Your task to perform on an android device: When is my next appointment? Image 0: 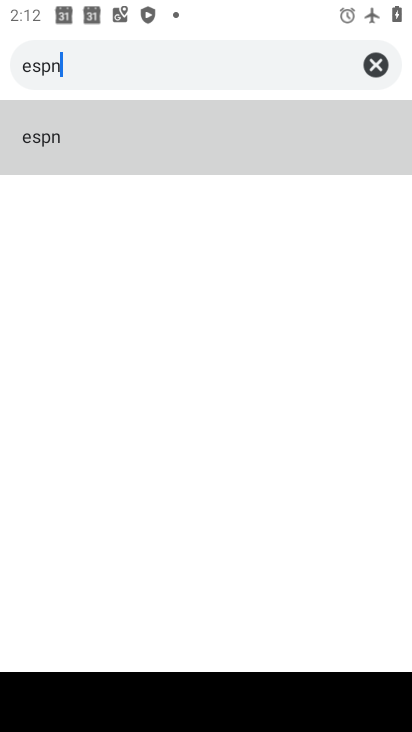
Step 0: press home button
Your task to perform on an android device: When is my next appointment? Image 1: 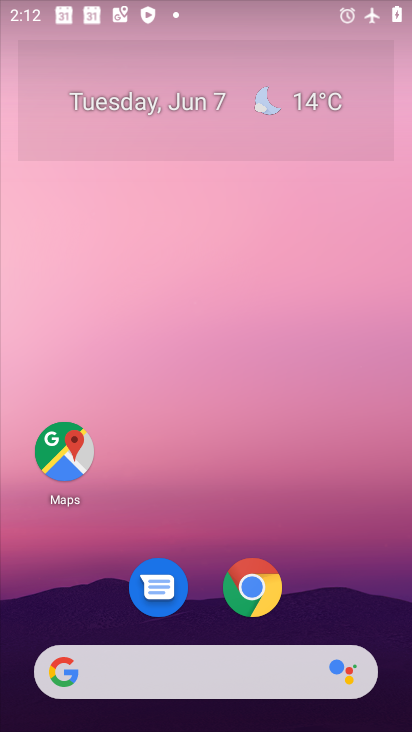
Step 1: drag from (259, 703) to (296, 543)
Your task to perform on an android device: When is my next appointment? Image 2: 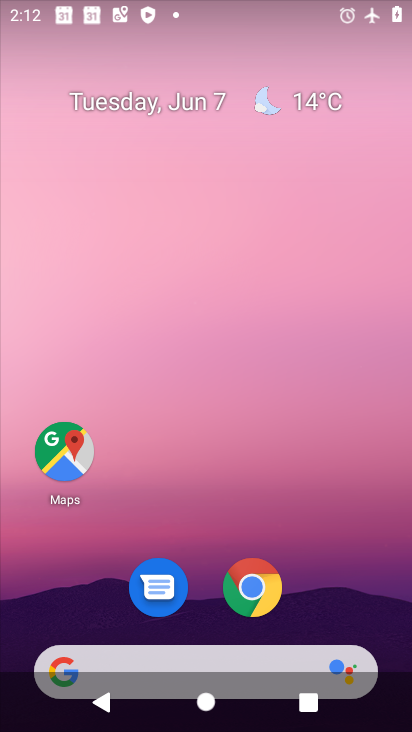
Step 2: drag from (296, 611) to (343, 236)
Your task to perform on an android device: When is my next appointment? Image 3: 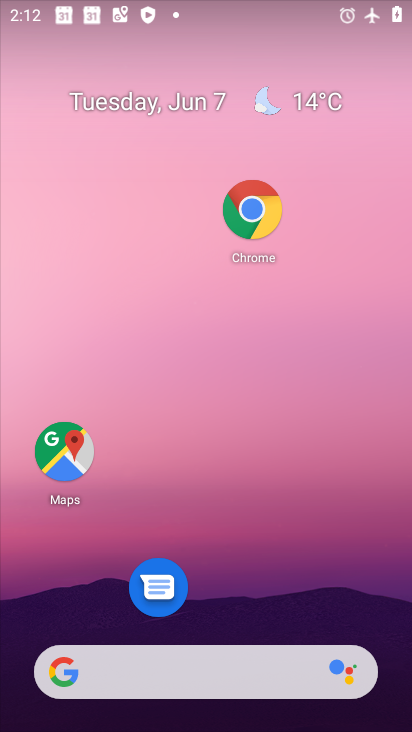
Step 3: drag from (299, 596) to (305, 337)
Your task to perform on an android device: When is my next appointment? Image 4: 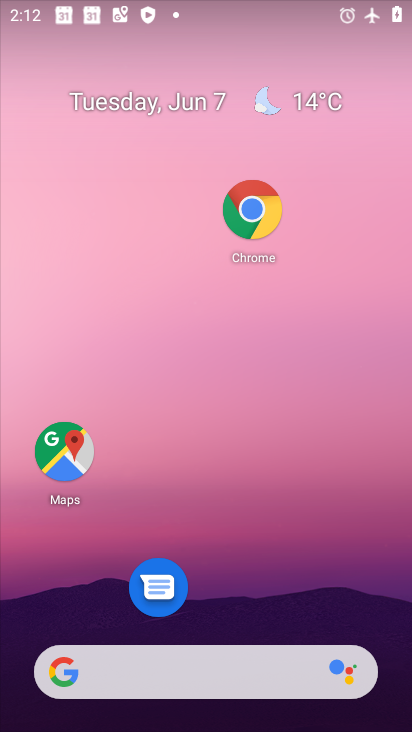
Step 4: drag from (296, 676) to (271, 224)
Your task to perform on an android device: When is my next appointment? Image 5: 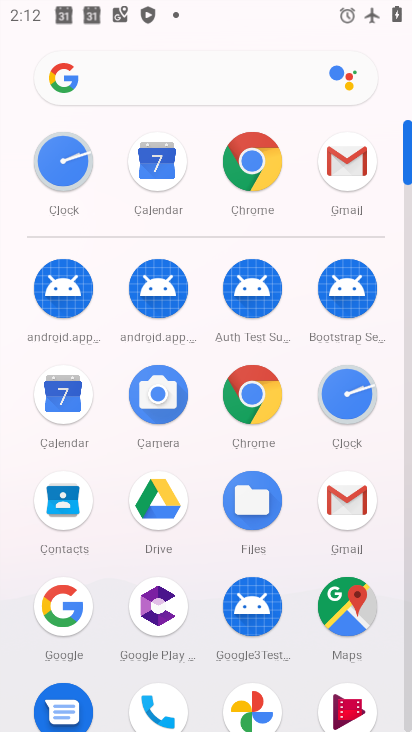
Step 5: click (64, 400)
Your task to perform on an android device: When is my next appointment? Image 6: 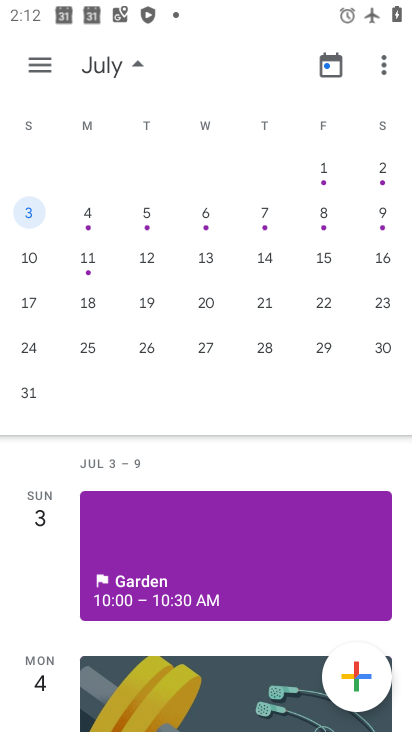
Step 6: click (42, 70)
Your task to perform on an android device: When is my next appointment? Image 7: 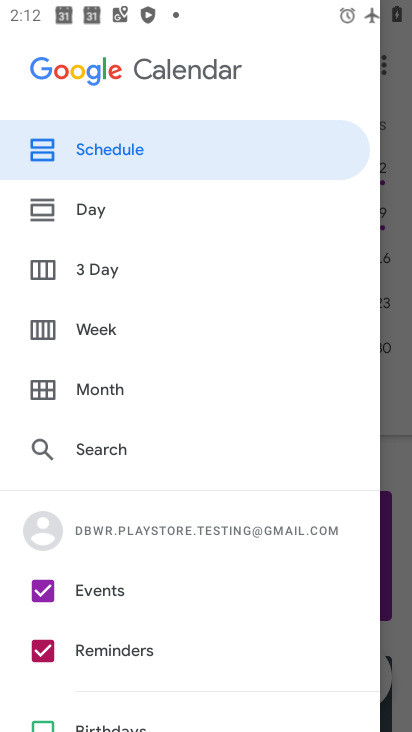
Step 7: click (387, 396)
Your task to perform on an android device: When is my next appointment? Image 8: 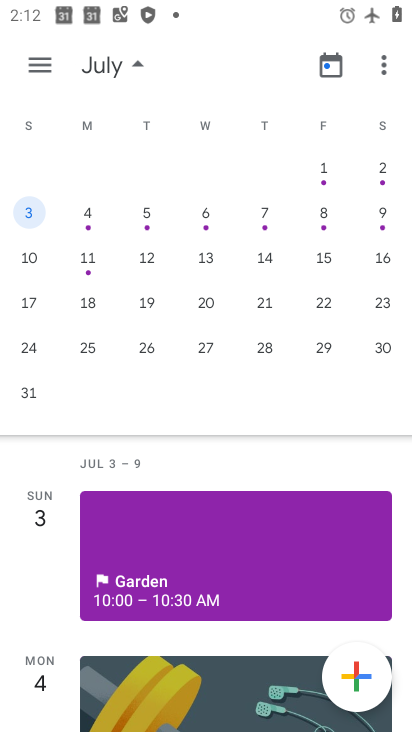
Step 8: drag from (128, 224) to (405, 243)
Your task to perform on an android device: When is my next appointment? Image 9: 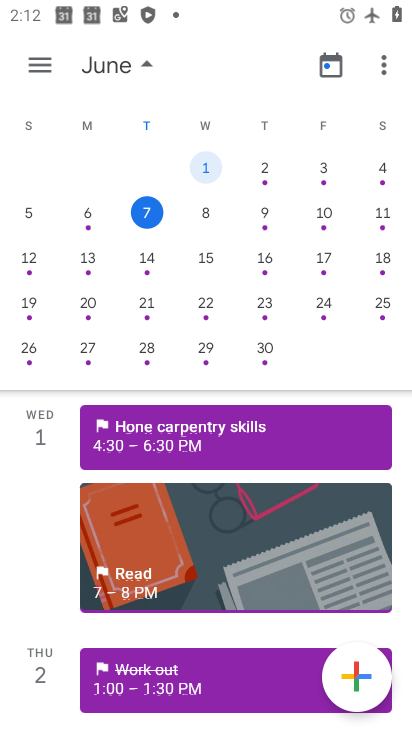
Step 9: drag from (179, 267) to (234, 270)
Your task to perform on an android device: When is my next appointment? Image 10: 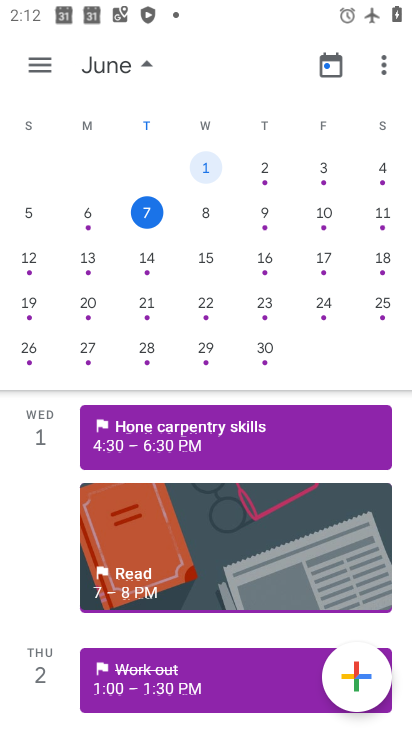
Step 10: click (149, 218)
Your task to perform on an android device: When is my next appointment? Image 11: 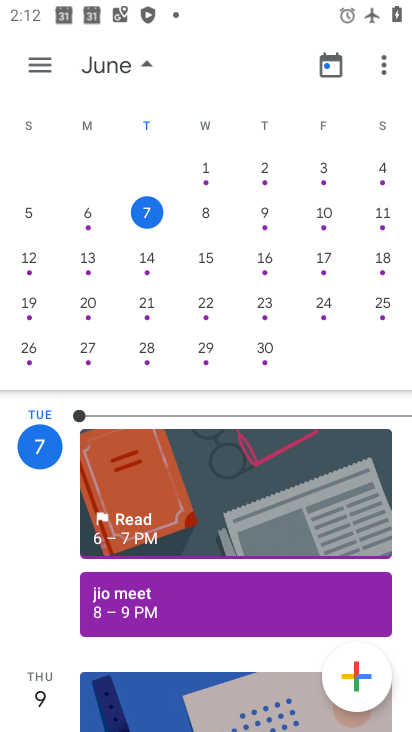
Step 11: task complete